Your task to perform on an android device: Open the web browser Image 0: 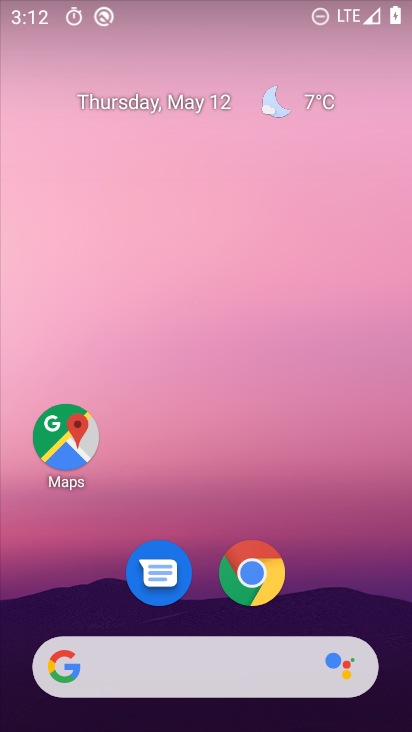
Step 0: click (307, 319)
Your task to perform on an android device: Open the web browser Image 1: 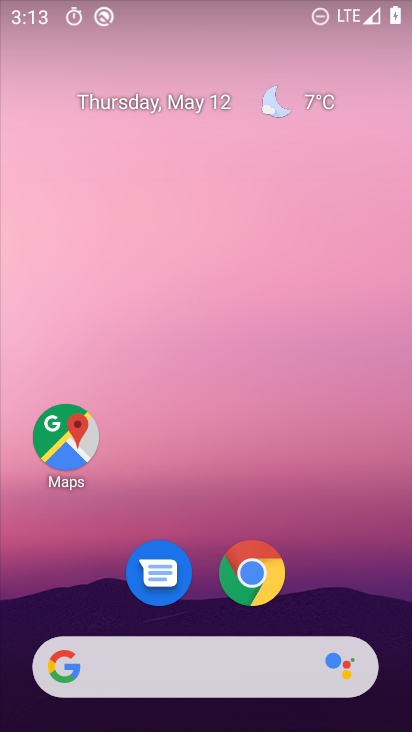
Step 1: click (219, 23)
Your task to perform on an android device: Open the web browser Image 2: 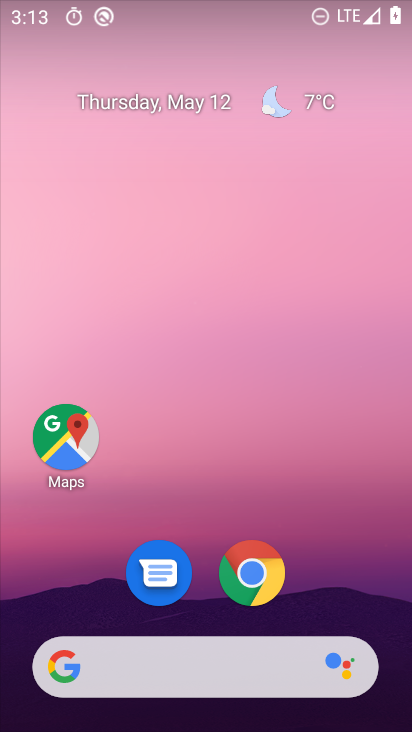
Step 2: drag from (302, 583) to (198, 2)
Your task to perform on an android device: Open the web browser Image 3: 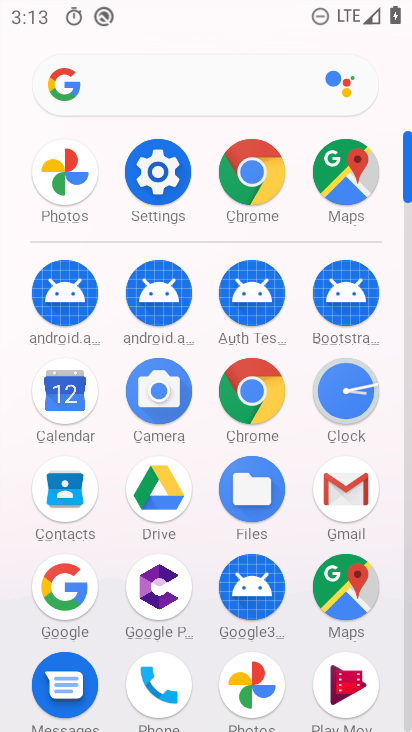
Step 3: click (241, 187)
Your task to perform on an android device: Open the web browser Image 4: 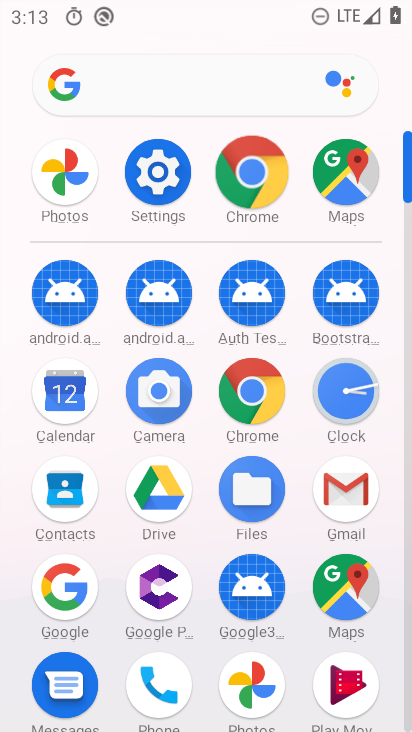
Step 4: click (242, 184)
Your task to perform on an android device: Open the web browser Image 5: 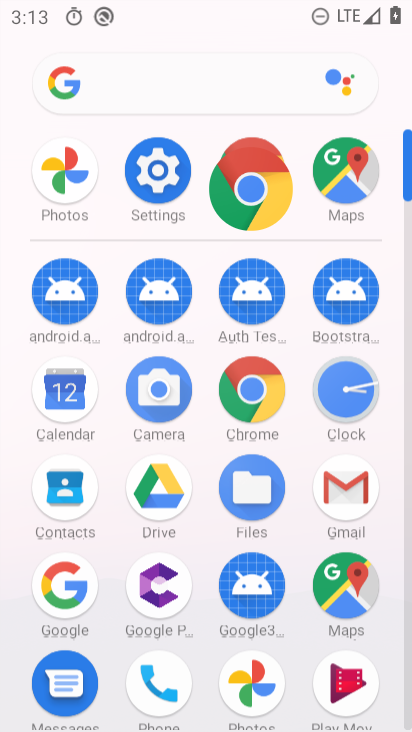
Step 5: click (242, 184)
Your task to perform on an android device: Open the web browser Image 6: 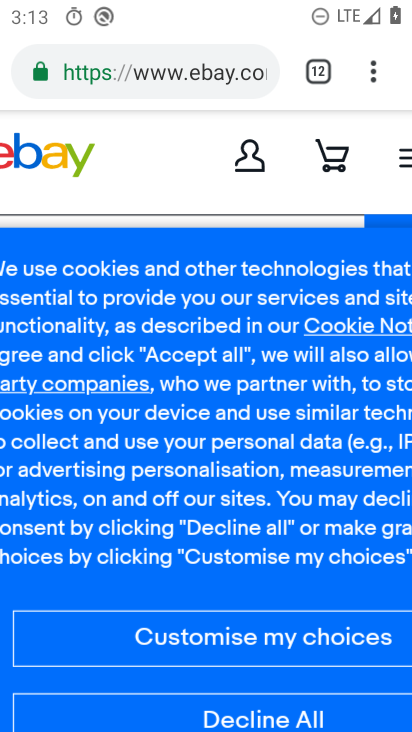
Step 6: drag from (372, 74) to (101, 143)
Your task to perform on an android device: Open the web browser Image 7: 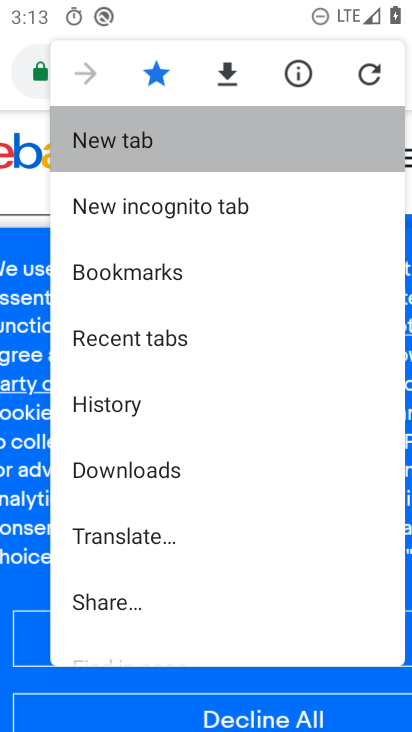
Step 7: click (100, 143)
Your task to perform on an android device: Open the web browser Image 8: 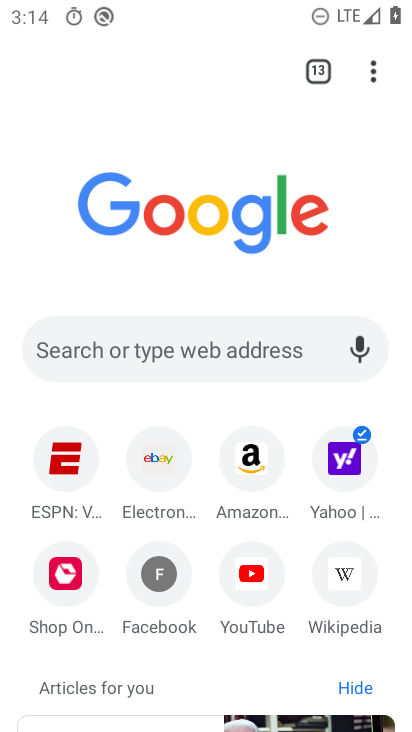
Step 8: task complete